Your task to perform on an android device: What is the news today? Image 0: 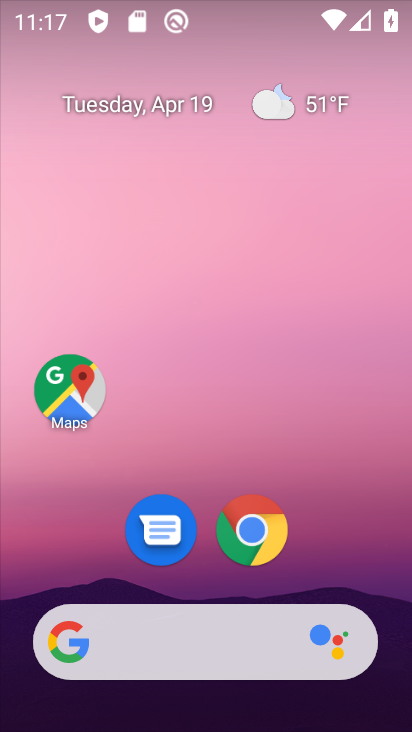
Step 0: click (387, 447)
Your task to perform on an android device: What is the news today? Image 1: 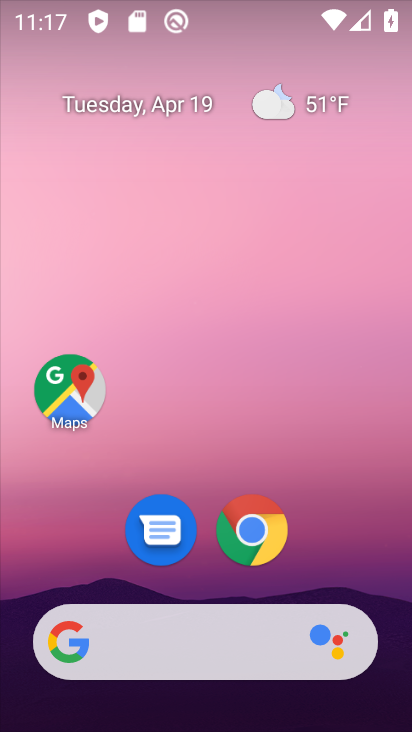
Step 1: task complete